Your task to perform on an android device: Open Amazon Image 0: 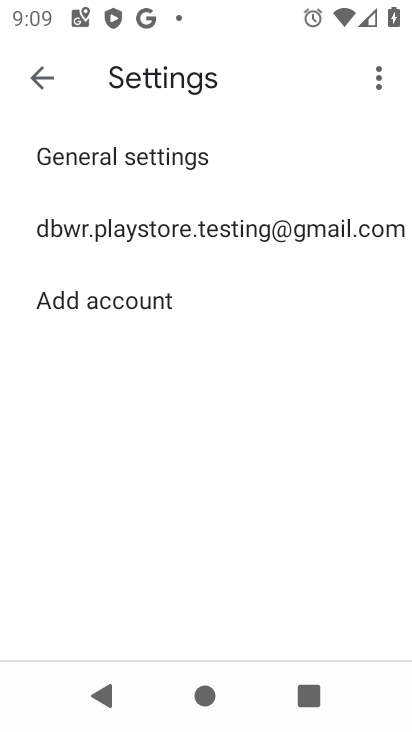
Step 0: press home button
Your task to perform on an android device: Open Amazon Image 1: 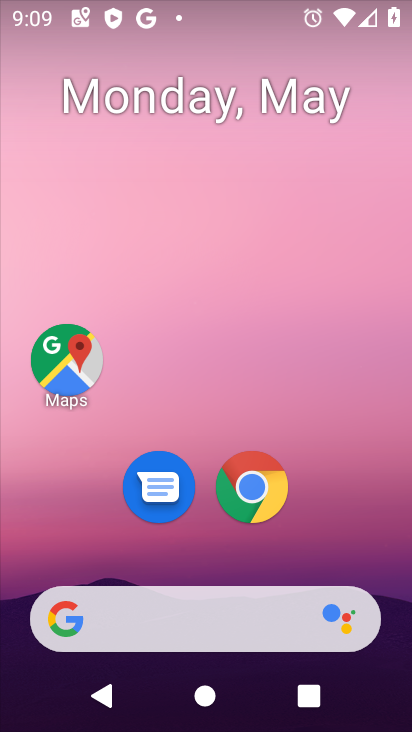
Step 1: click (259, 481)
Your task to perform on an android device: Open Amazon Image 2: 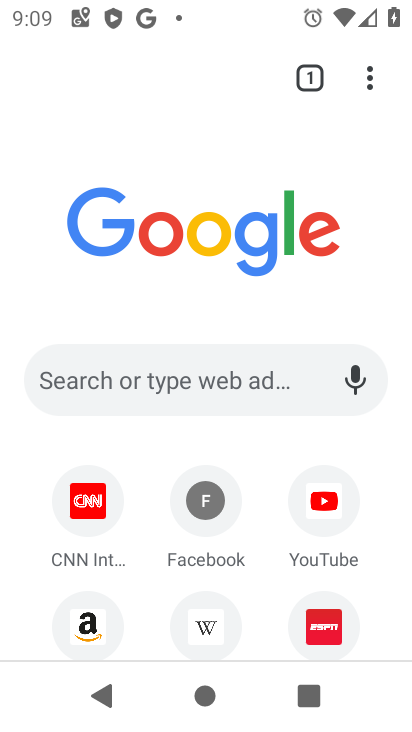
Step 2: click (99, 610)
Your task to perform on an android device: Open Amazon Image 3: 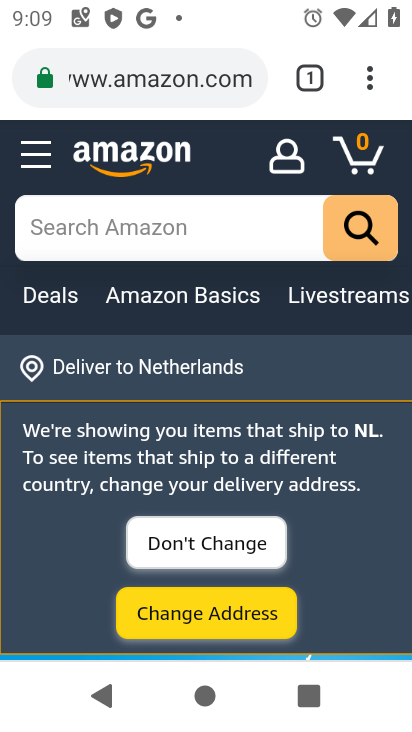
Step 3: task complete